Your task to perform on an android device: refresh tabs in the chrome app Image 0: 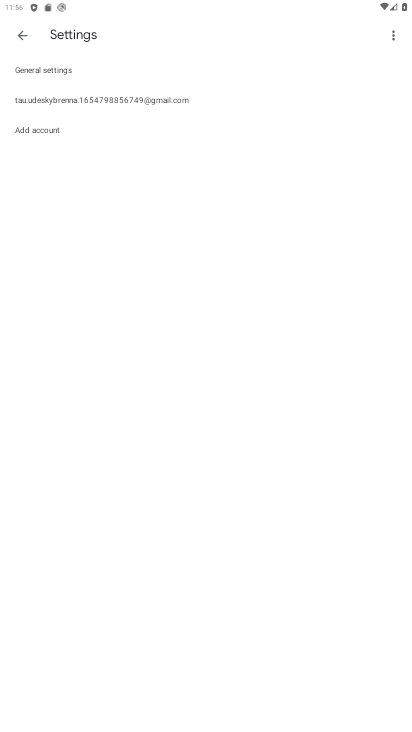
Step 0: press back button
Your task to perform on an android device: refresh tabs in the chrome app Image 1: 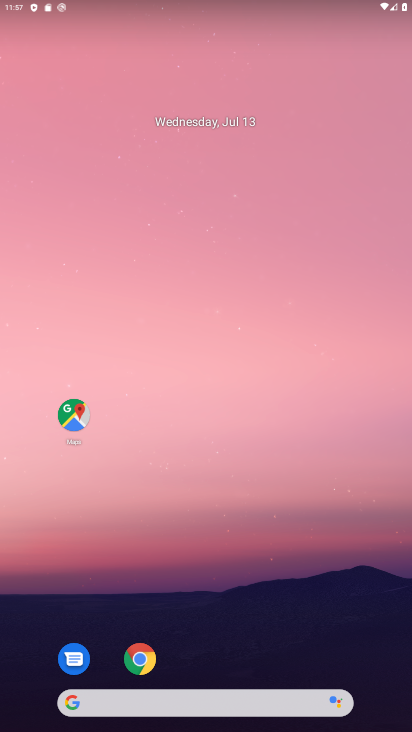
Step 1: click (144, 680)
Your task to perform on an android device: refresh tabs in the chrome app Image 2: 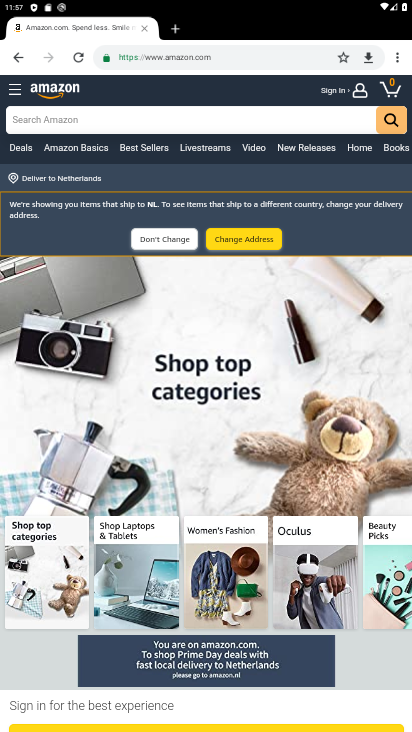
Step 2: drag from (395, 56) to (251, 61)
Your task to perform on an android device: refresh tabs in the chrome app Image 3: 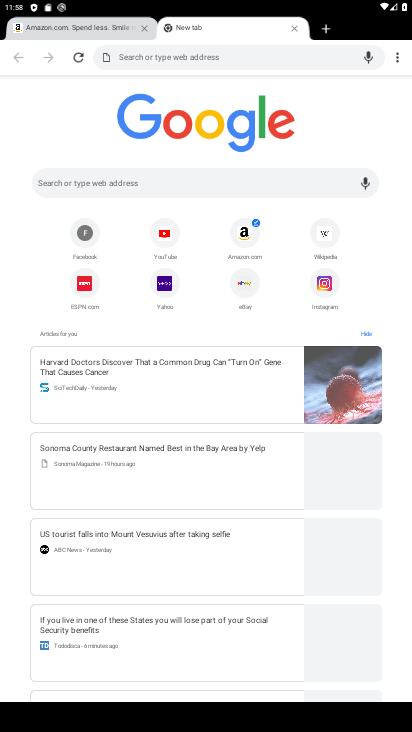
Step 3: click (397, 54)
Your task to perform on an android device: refresh tabs in the chrome app Image 4: 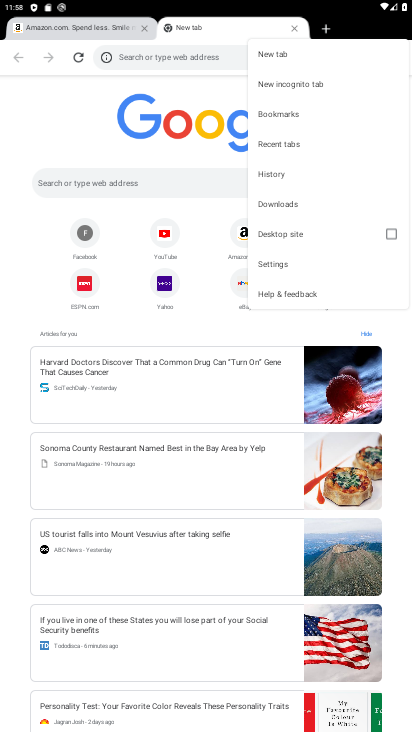
Step 4: click (179, 27)
Your task to perform on an android device: refresh tabs in the chrome app Image 5: 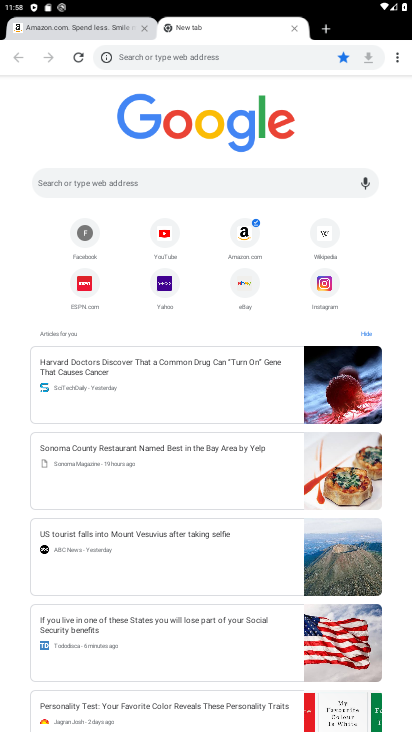
Step 5: click (398, 58)
Your task to perform on an android device: refresh tabs in the chrome app Image 6: 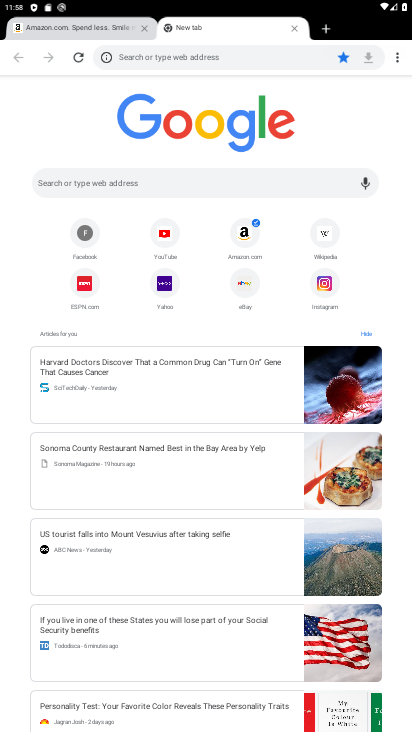
Step 6: click (214, 28)
Your task to perform on an android device: refresh tabs in the chrome app Image 7: 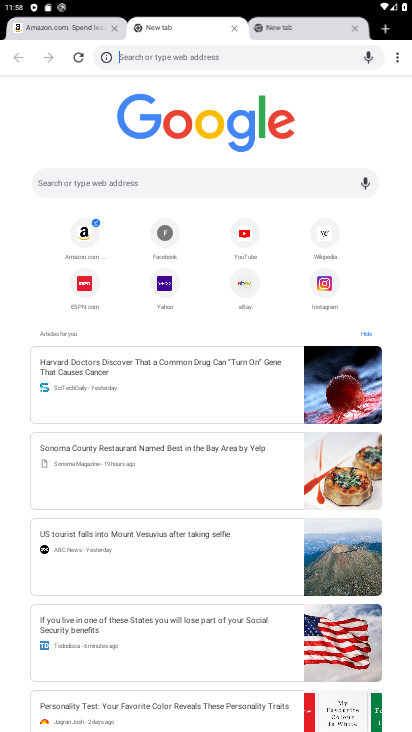
Step 7: click (354, 23)
Your task to perform on an android device: refresh tabs in the chrome app Image 8: 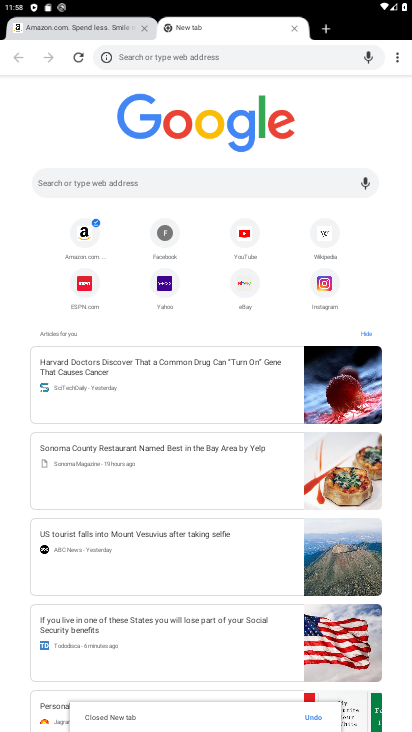
Step 8: click (74, 58)
Your task to perform on an android device: refresh tabs in the chrome app Image 9: 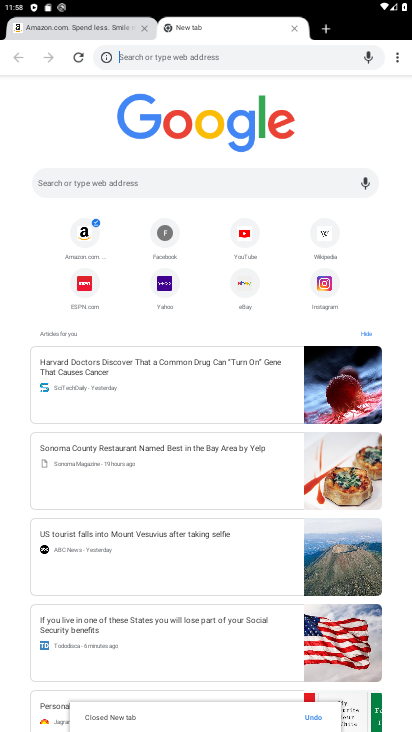
Step 9: task complete